Your task to perform on an android device: What is the recent news? Image 0: 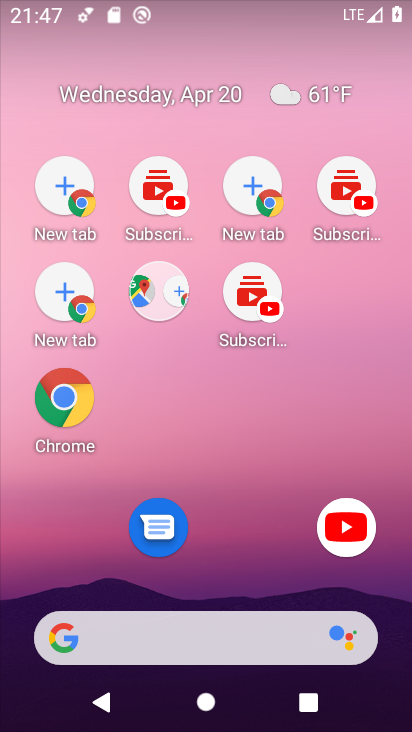
Step 0: drag from (232, 534) to (204, 280)
Your task to perform on an android device: What is the recent news? Image 1: 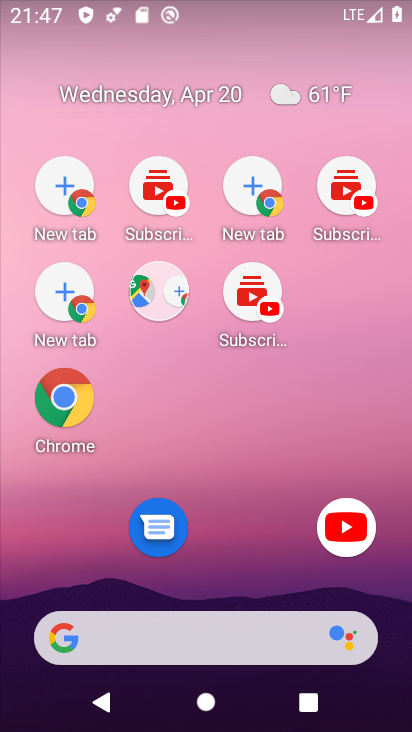
Step 1: drag from (283, 674) to (155, 166)
Your task to perform on an android device: What is the recent news? Image 2: 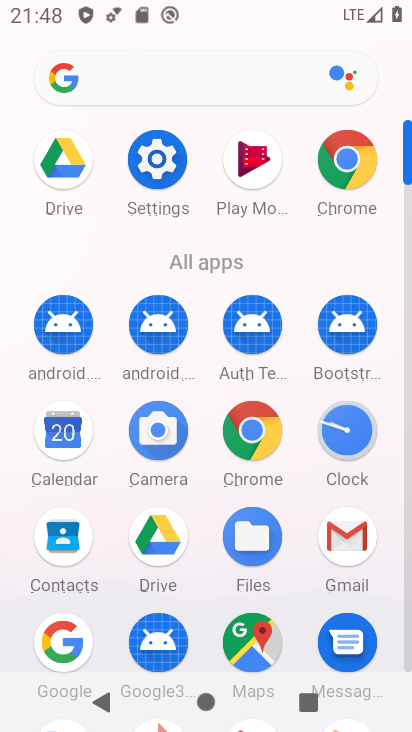
Step 2: click (406, 574)
Your task to perform on an android device: What is the recent news? Image 3: 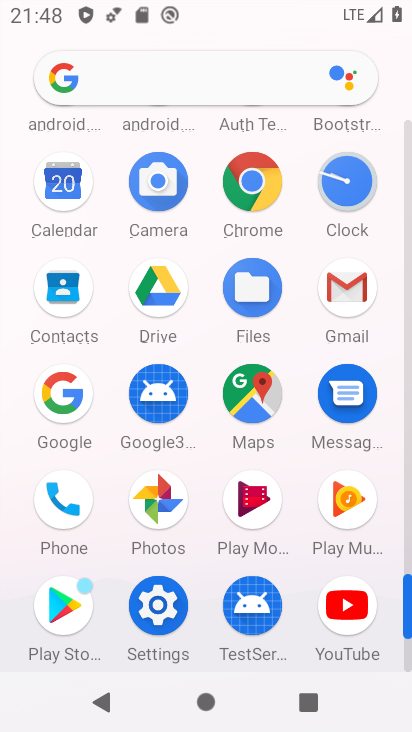
Step 3: press home button
Your task to perform on an android device: What is the recent news? Image 4: 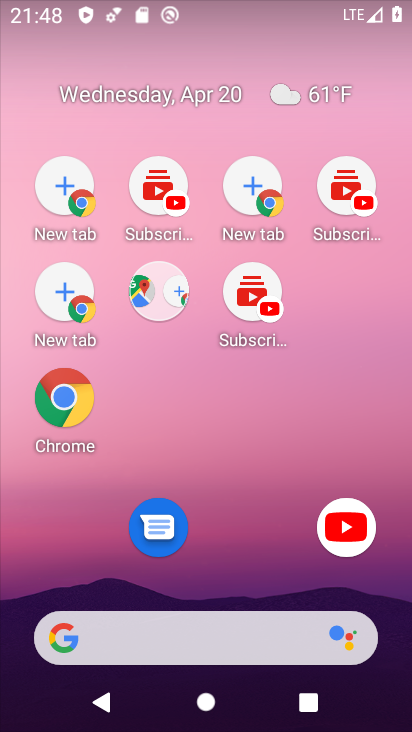
Step 4: drag from (18, 319) to (405, 387)
Your task to perform on an android device: What is the recent news? Image 5: 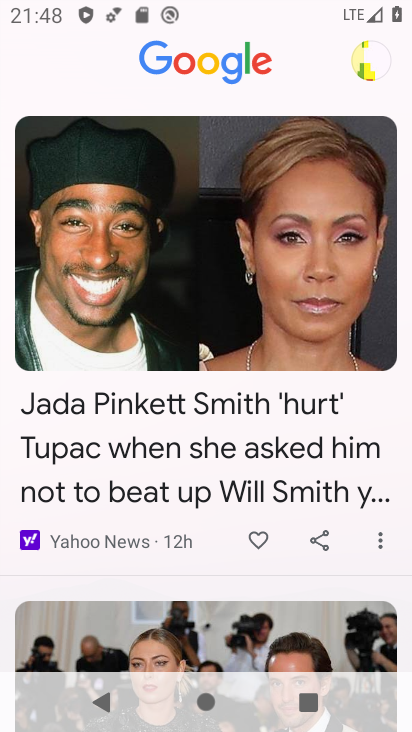
Step 5: drag from (188, 471) to (141, 244)
Your task to perform on an android device: What is the recent news? Image 6: 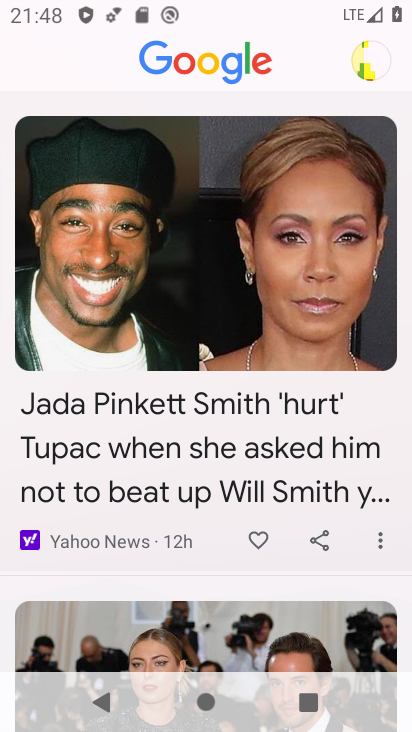
Step 6: drag from (117, 439) to (117, 175)
Your task to perform on an android device: What is the recent news? Image 7: 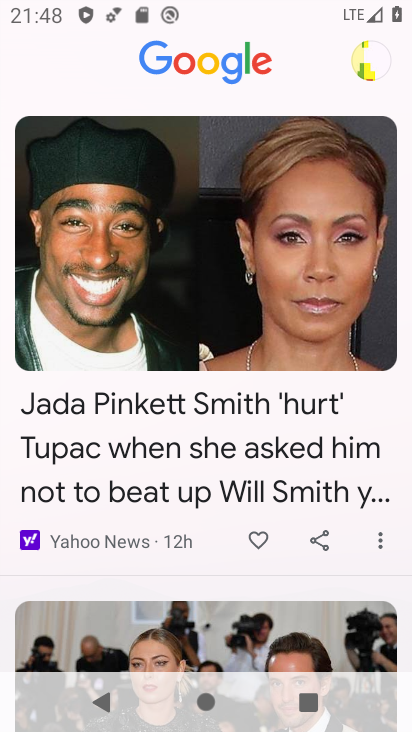
Step 7: drag from (144, 152) to (144, 94)
Your task to perform on an android device: What is the recent news? Image 8: 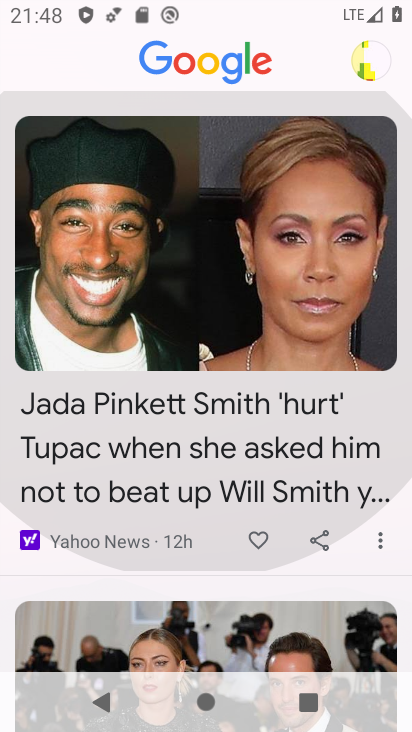
Step 8: drag from (199, 510) to (263, 3)
Your task to perform on an android device: What is the recent news? Image 9: 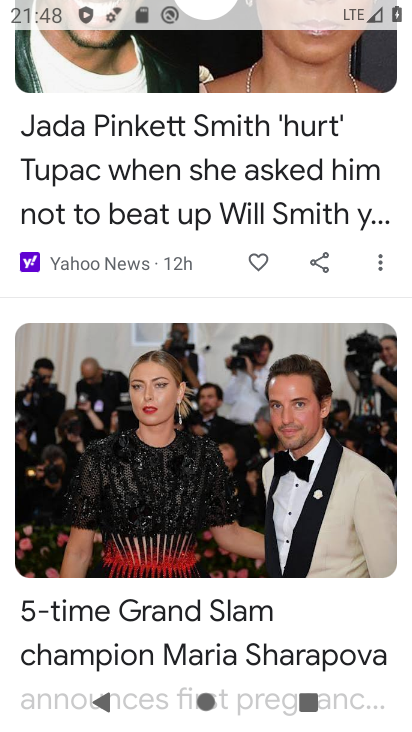
Step 9: drag from (233, 507) to (248, 158)
Your task to perform on an android device: What is the recent news? Image 10: 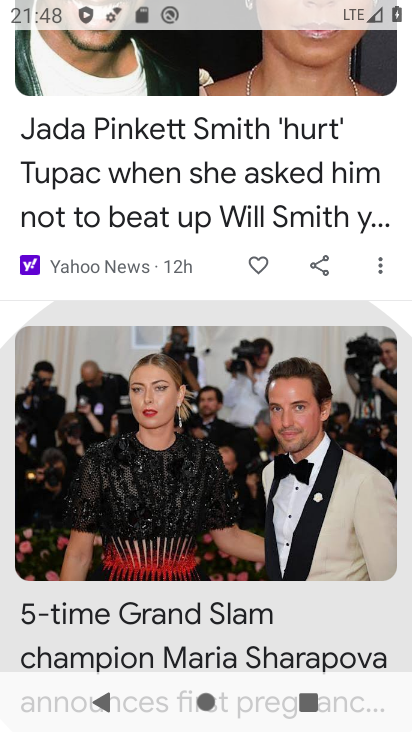
Step 10: drag from (264, 606) to (232, 207)
Your task to perform on an android device: What is the recent news? Image 11: 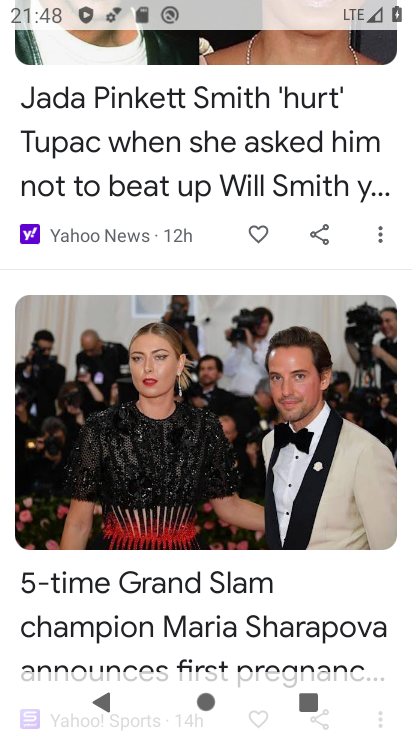
Step 11: drag from (202, 540) to (197, 192)
Your task to perform on an android device: What is the recent news? Image 12: 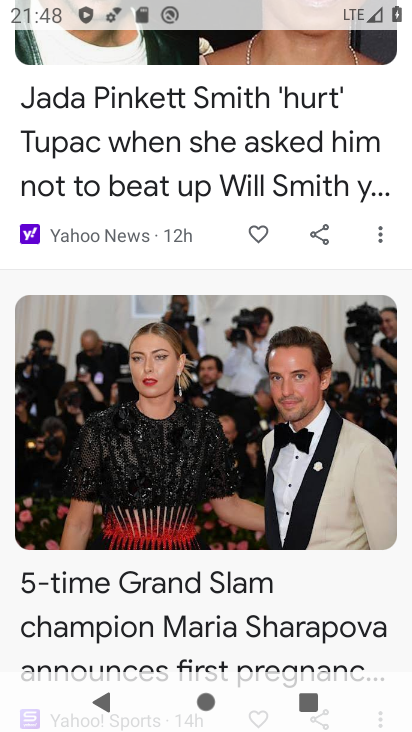
Step 12: drag from (205, 430) to (198, 62)
Your task to perform on an android device: What is the recent news? Image 13: 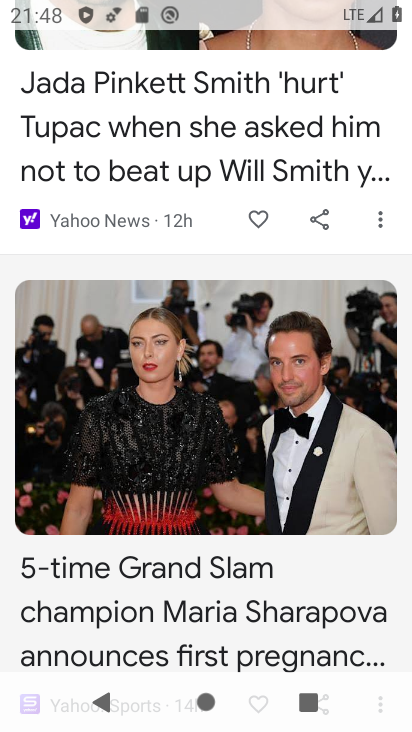
Step 13: drag from (129, 216) to (134, 161)
Your task to perform on an android device: What is the recent news? Image 14: 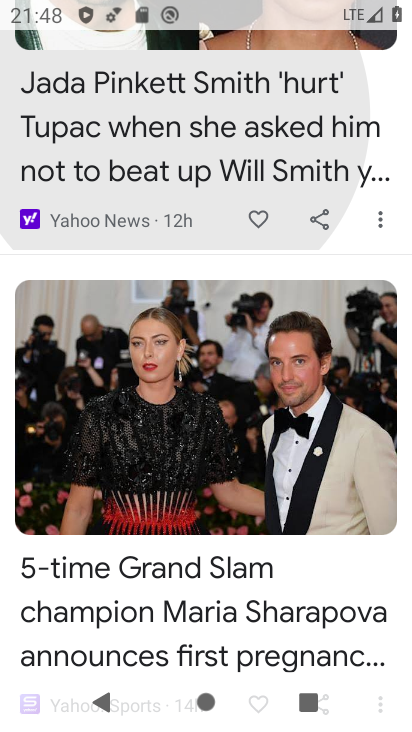
Step 14: drag from (204, 242) to (222, 83)
Your task to perform on an android device: What is the recent news? Image 15: 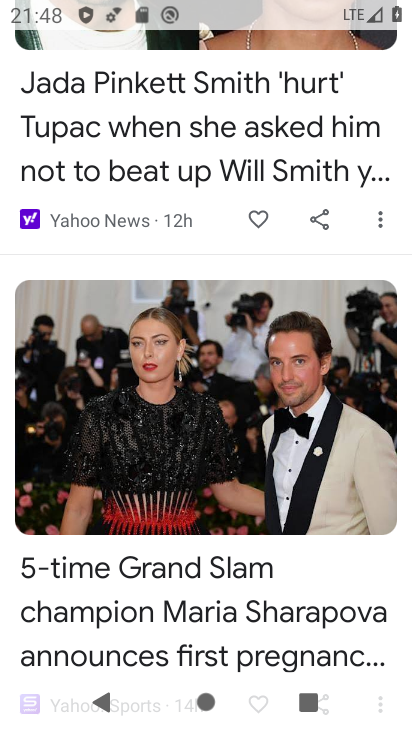
Step 15: drag from (143, 421) to (189, 122)
Your task to perform on an android device: What is the recent news? Image 16: 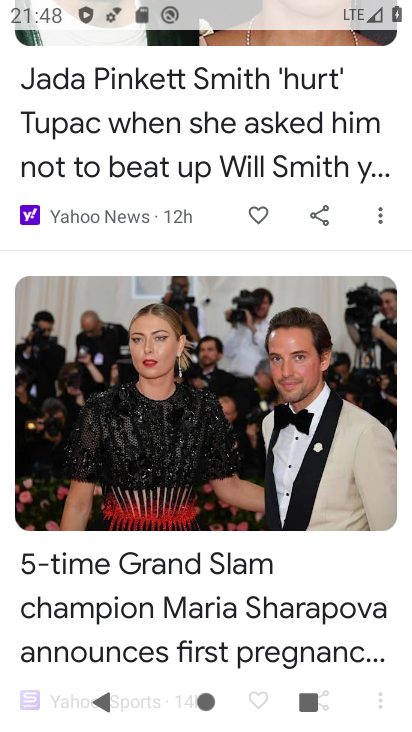
Step 16: drag from (138, 491) to (187, 140)
Your task to perform on an android device: What is the recent news? Image 17: 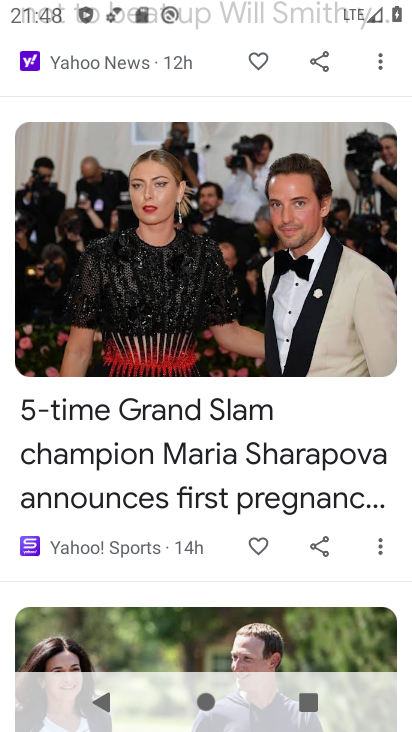
Step 17: drag from (117, 307) to (214, 58)
Your task to perform on an android device: What is the recent news? Image 18: 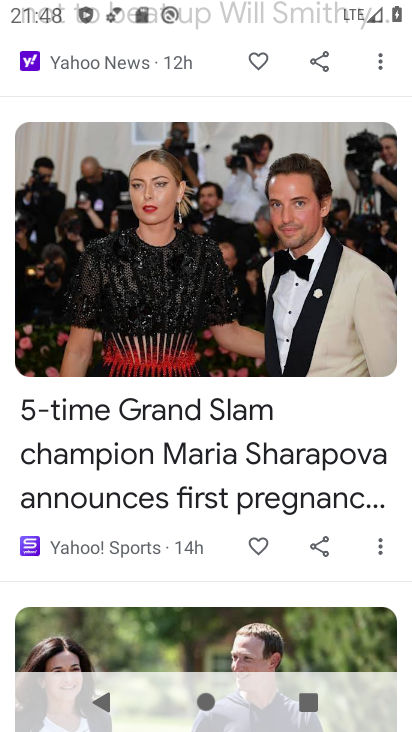
Step 18: drag from (157, 280) to (193, 378)
Your task to perform on an android device: What is the recent news? Image 19: 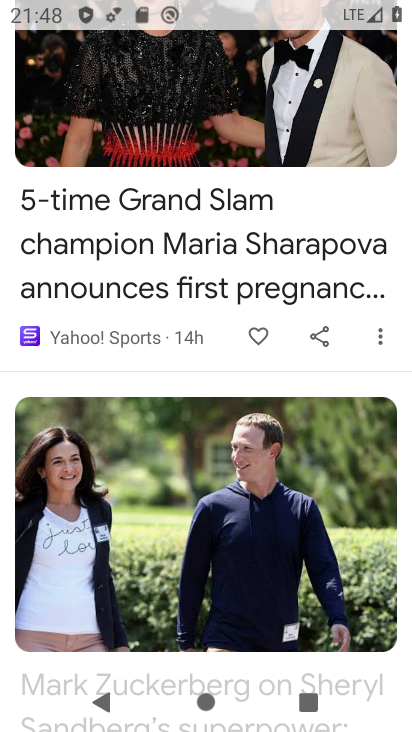
Step 19: drag from (188, 171) to (248, 413)
Your task to perform on an android device: What is the recent news? Image 20: 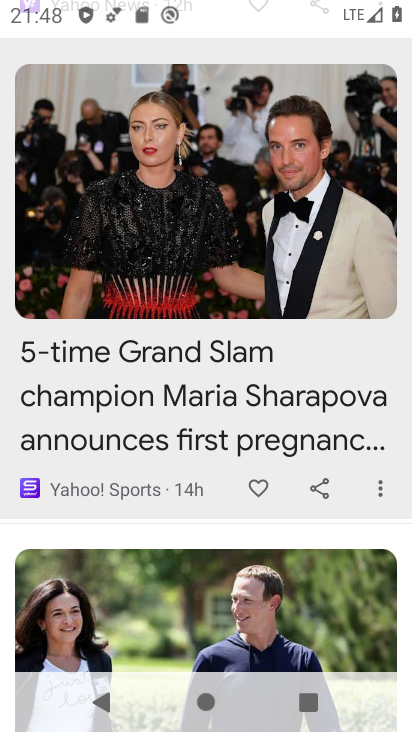
Step 20: drag from (157, 180) to (167, 452)
Your task to perform on an android device: What is the recent news? Image 21: 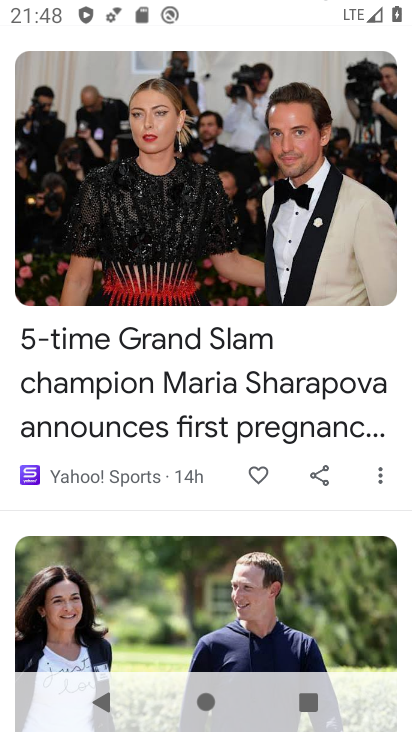
Step 21: drag from (117, 233) to (161, 404)
Your task to perform on an android device: What is the recent news? Image 22: 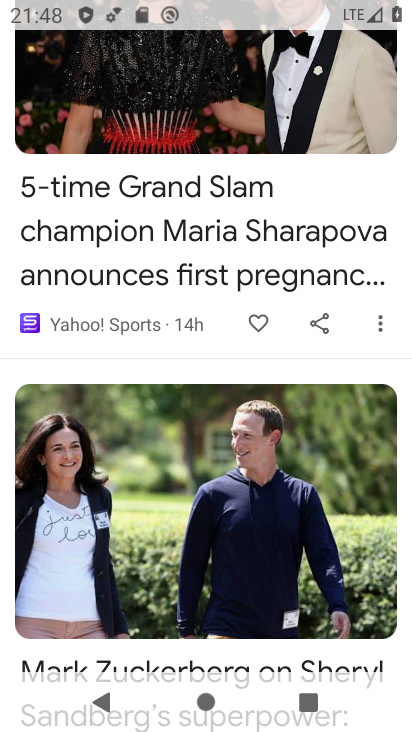
Step 22: drag from (207, 435) to (221, 502)
Your task to perform on an android device: What is the recent news? Image 23: 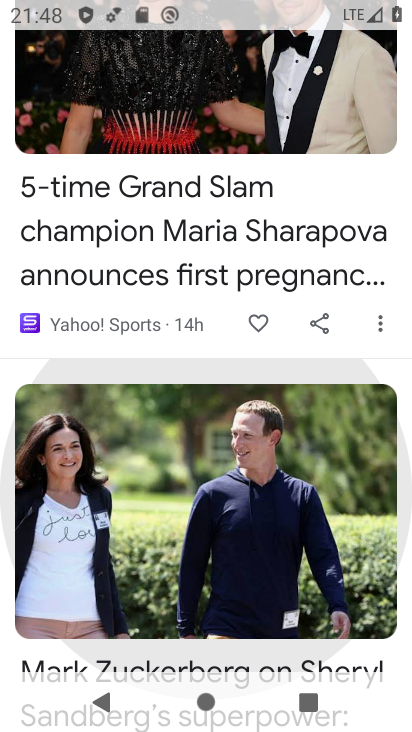
Step 23: drag from (238, 438) to (153, 423)
Your task to perform on an android device: What is the recent news? Image 24: 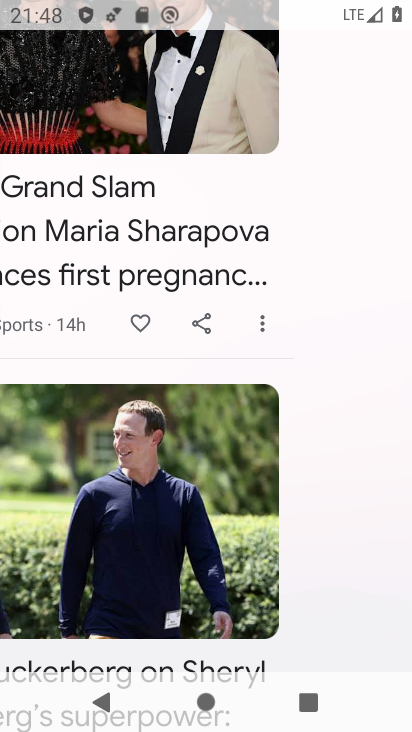
Step 24: drag from (143, 337) to (140, 247)
Your task to perform on an android device: What is the recent news? Image 25: 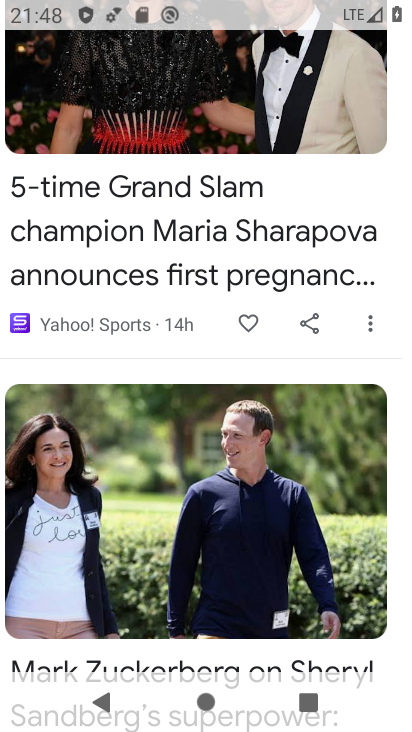
Step 25: click (156, 276)
Your task to perform on an android device: What is the recent news? Image 26: 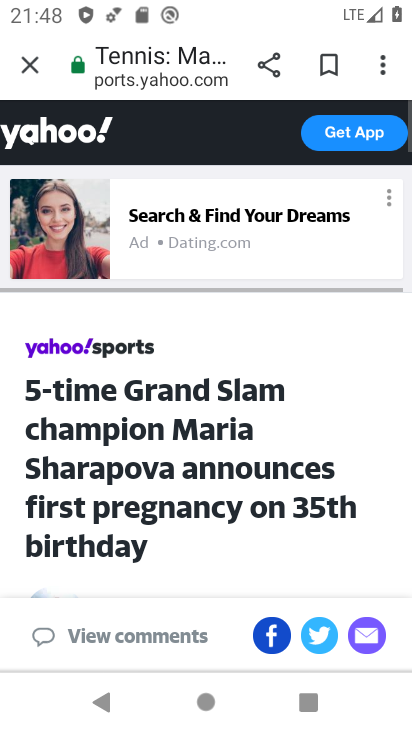
Step 26: click (26, 61)
Your task to perform on an android device: What is the recent news? Image 27: 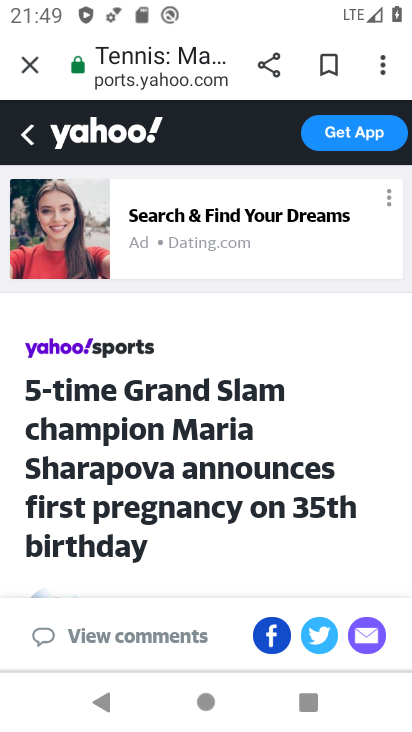
Step 27: click (23, 66)
Your task to perform on an android device: What is the recent news? Image 28: 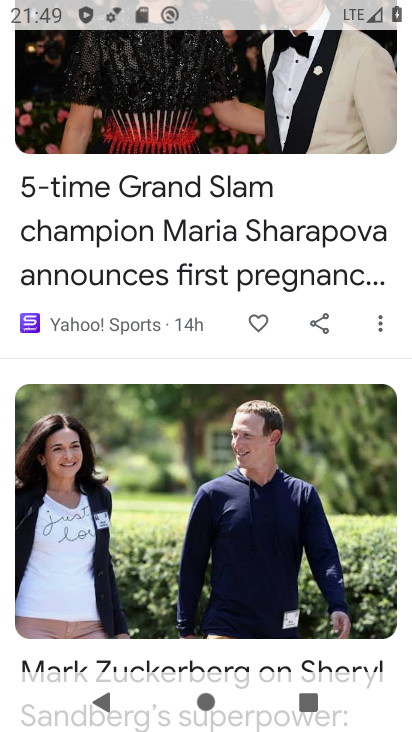
Step 28: task complete